Your task to perform on an android device: Go to internet settings Image 0: 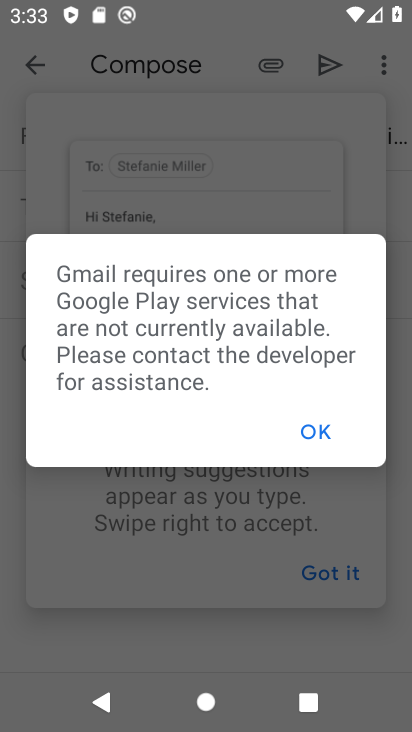
Step 0: press home button
Your task to perform on an android device: Go to internet settings Image 1: 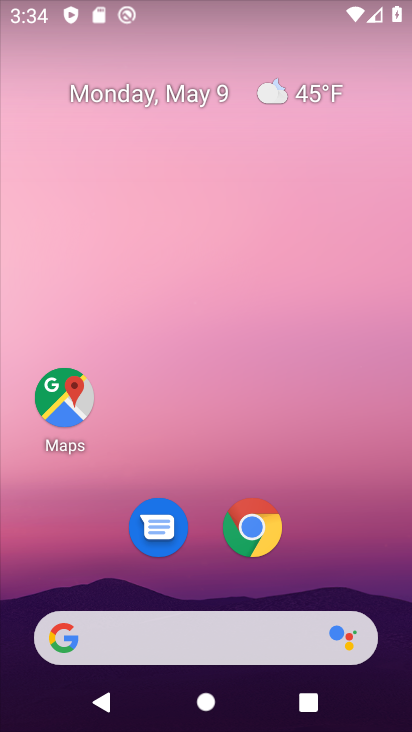
Step 1: drag from (376, 550) to (260, 221)
Your task to perform on an android device: Go to internet settings Image 2: 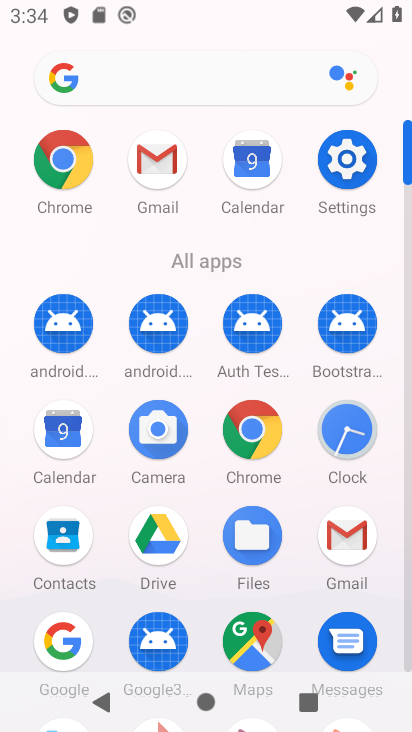
Step 2: click (339, 161)
Your task to perform on an android device: Go to internet settings Image 3: 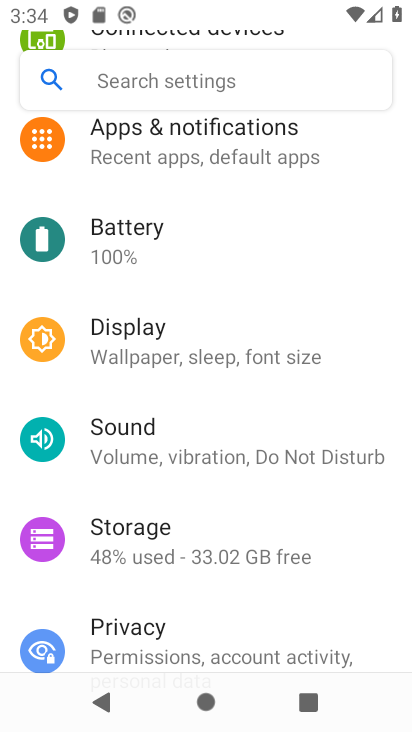
Step 3: drag from (264, 160) to (229, 566)
Your task to perform on an android device: Go to internet settings Image 4: 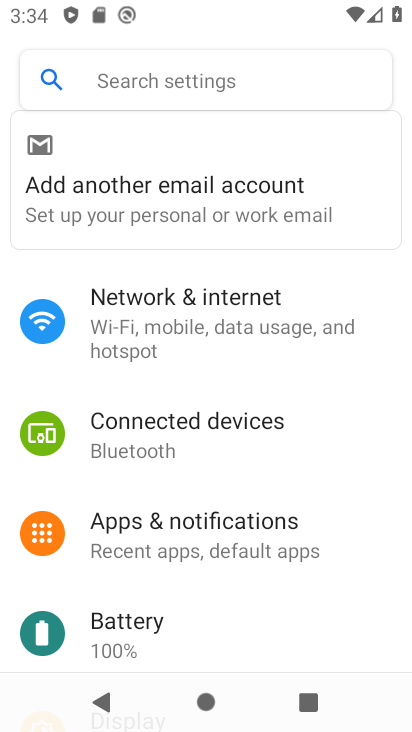
Step 4: click (244, 343)
Your task to perform on an android device: Go to internet settings Image 5: 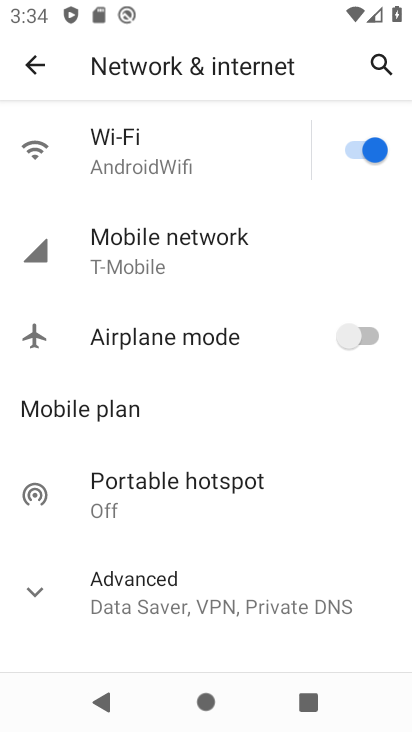
Step 5: click (218, 238)
Your task to perform on an android device: Go to internet settings Image 6: 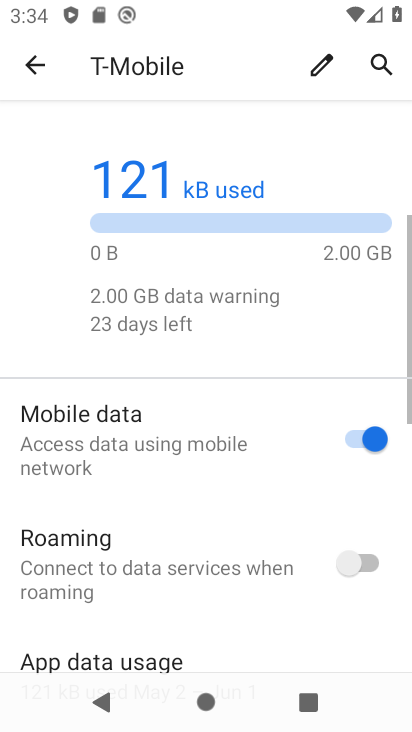
Step 6: task complete